Your task to perform on an android device: open the mobile data screen to see how much data has been used Image 0: 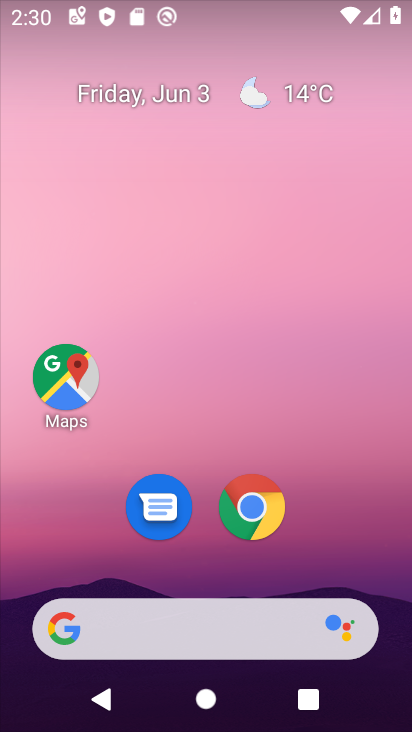
Step 0: drag from (326, 539) to (302, 3)
Your task to perform on an android device: open the mobile data screen to see how much data has been used Image 1: 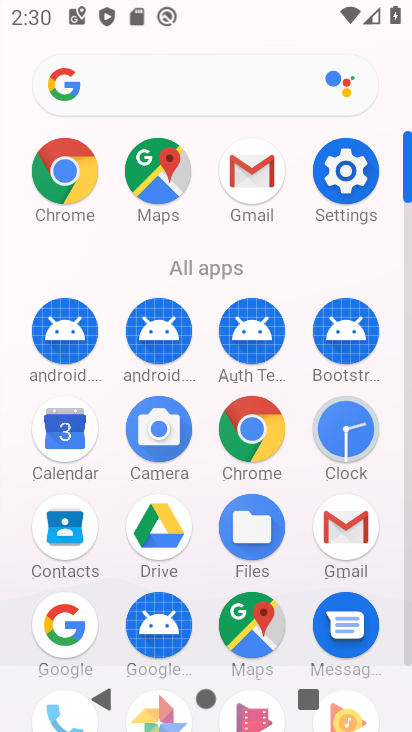
Step 1: click (345, 172)
Your task to perform on an android device: open the mobile data screen to see how much data has been used Image 2: 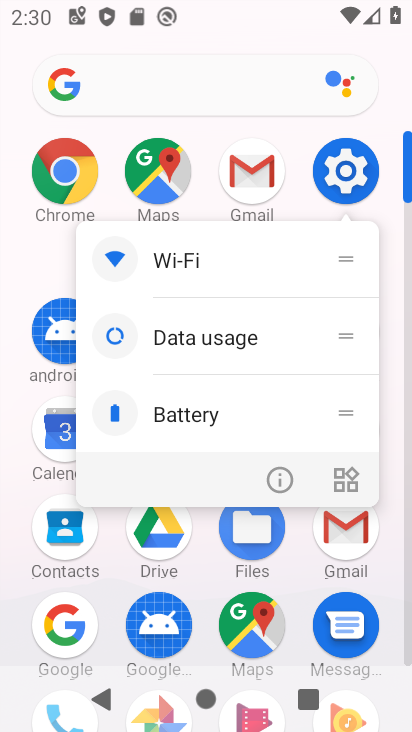
Step 2: click (345, 172)
Your task to perform on an android device: open the mobile data screen to see how much data has been used Image 3: 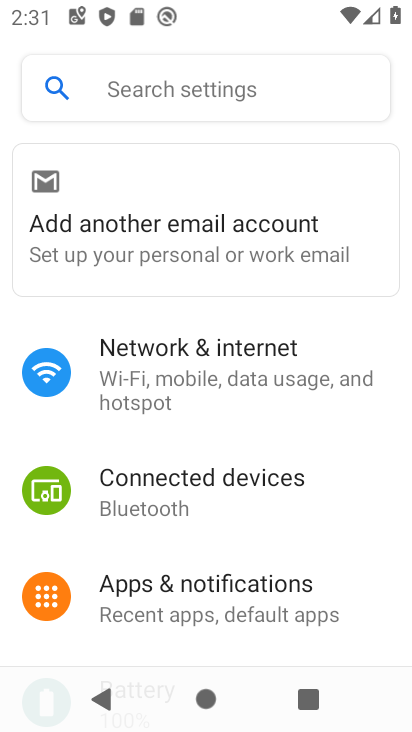
Step 3: click (235, 342)
Your task to perform on an android device: open the mobile data screen to see how much data has been used Image 4: 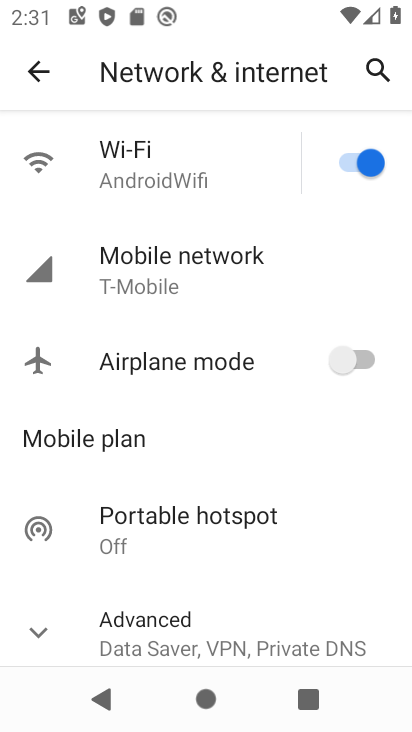
Step 4: click (169, 261)
Your task to perform on an android device: open the mobile data screen to see how much data has been used Image 5: 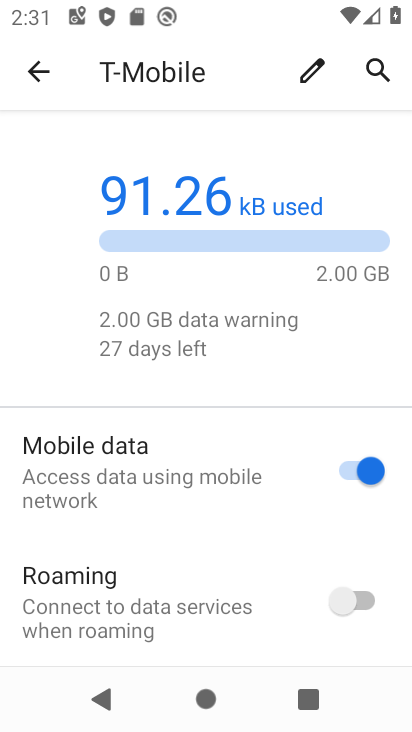
Step 5: task complete